Your task to perform on an android device: Open the stopwatch Image 0: 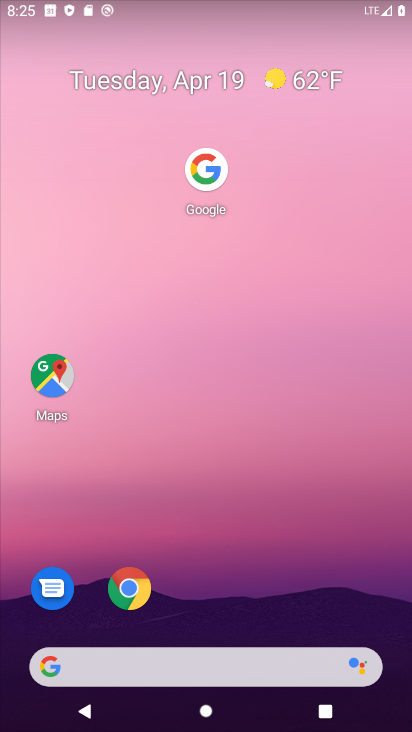
Step 0: drag from (231, 570) to (366, 1)
Your task to perform on an android device: Open the stopwatch Image 1: 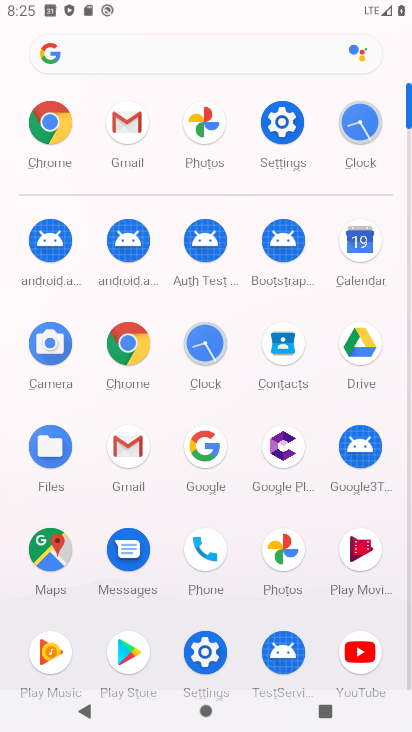
Step 1: click (367, 127)
Your task to perform on an android device: Open the stopwatch Image 2: 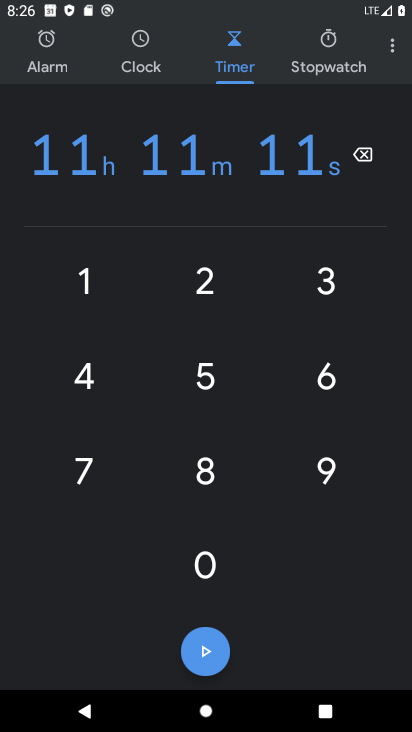
Step 2: click (329, 33)
Your task to perform on an android device: Open the stopwatch Image 3: 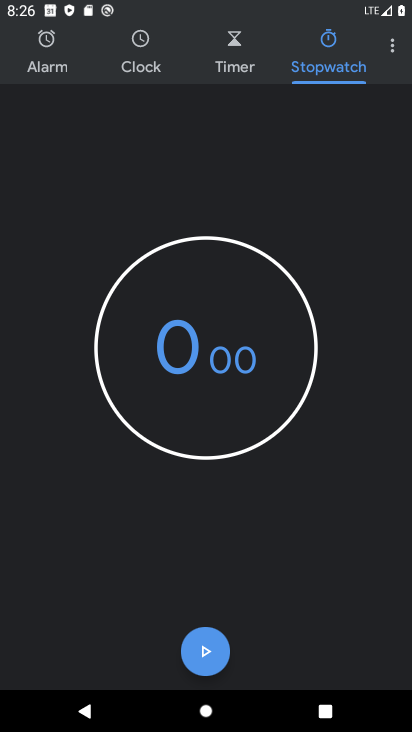
Step 3: task complete